Your task to perform on an android device: turn off translation in the chrome app Image 0: 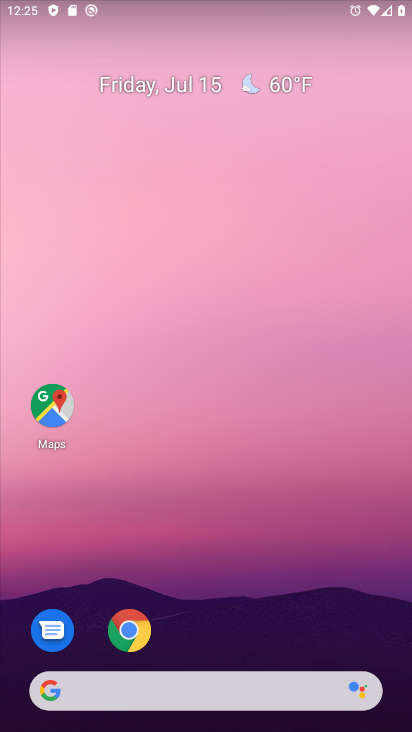
Step 0: click (118, 637)
Your task to perform on an android device: turn off translation in the chrome app Image 1: 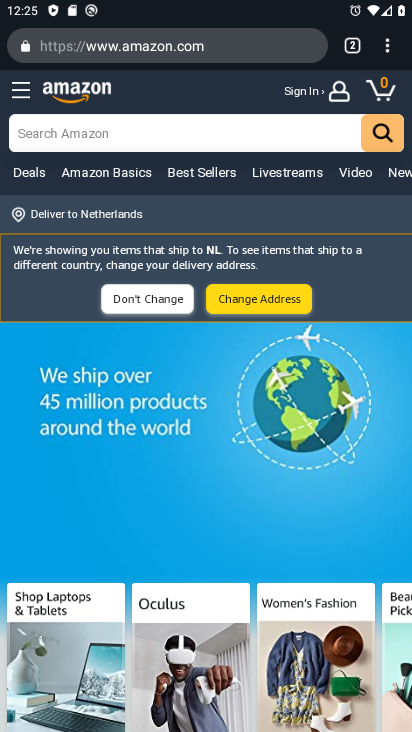
Step 1: click (392, 47)
Your task to perform on an android device: turn off translation in the chrome app Image 2: 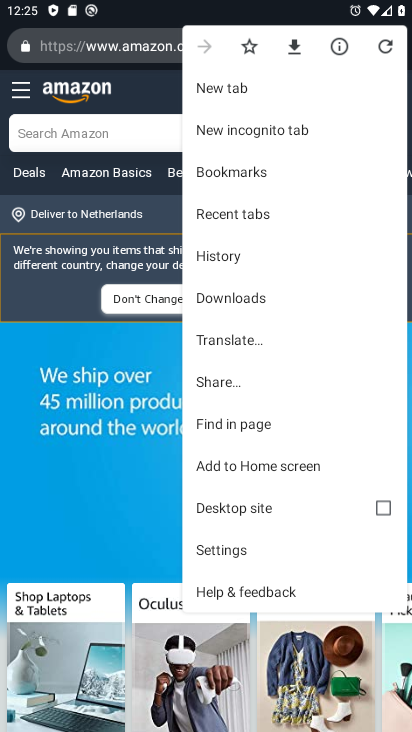
Step 2: click (219, 546)
Your task to perform on an android device: turn off translation in the chrome app Image 3: 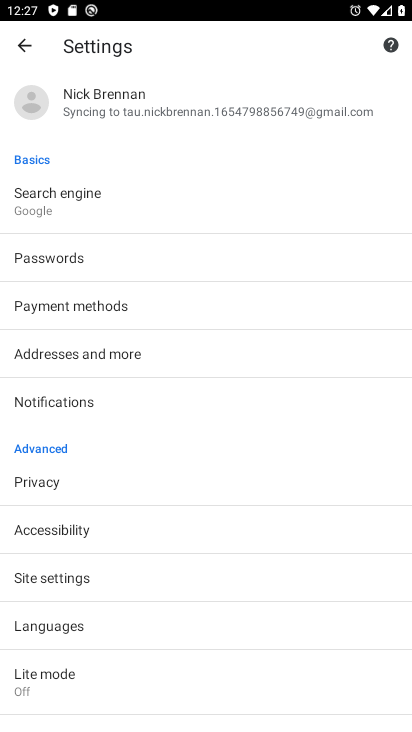
Step 3: press home button
Your task to perform on an android device: turn off translation in the chrome app Image 4: 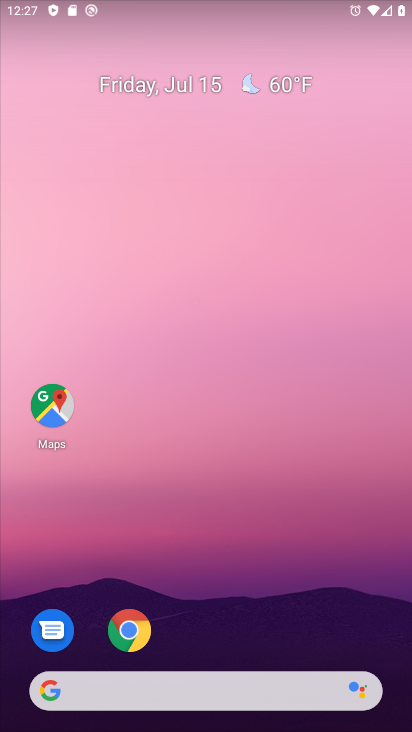
Step 4: drag from (224, 272) to (275, 567)
Your task to perform on an android device: turn off translation in the chrome app Image 5: 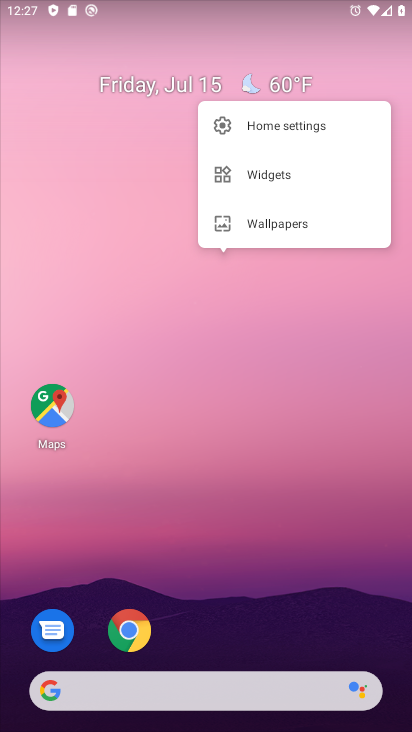
Step 5: click (126, 643)
Your task to perform on an android device: turn off translation in the chrome app Image 6: 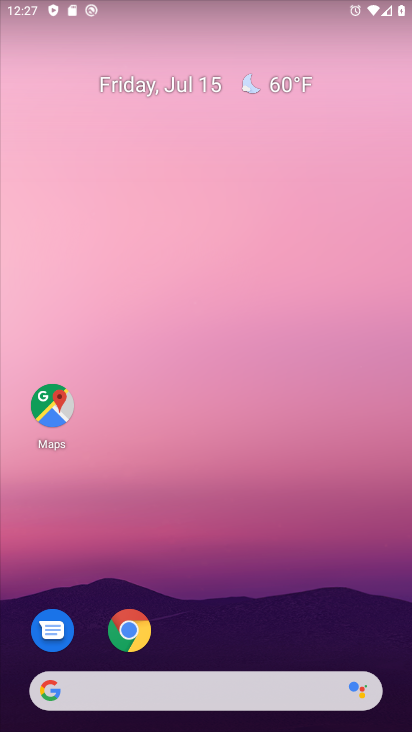
Step 6: click (130, 632)
Your task to perform on an android device: turn off translation in the chrome app Image 7: 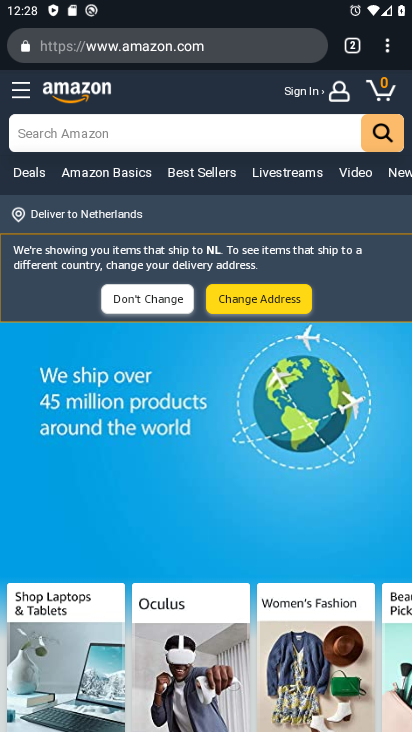
Step 7: click (384, 49)
Your task to perform on an android device: turn off translation in the chrome app Image 8: 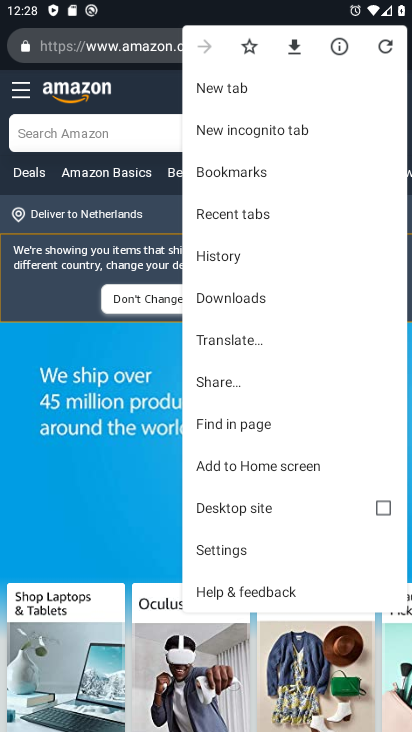
Step 8: click (225, 556)
Your task to perform on an android device: turn off translation in the chrome app Image 9: 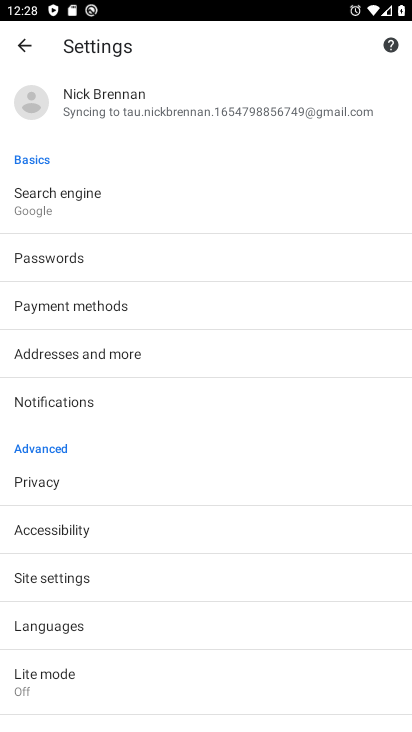
Step 9: click (41, 626)
Your task to perform on an android device: turn off translation in the chrome app Image 10: 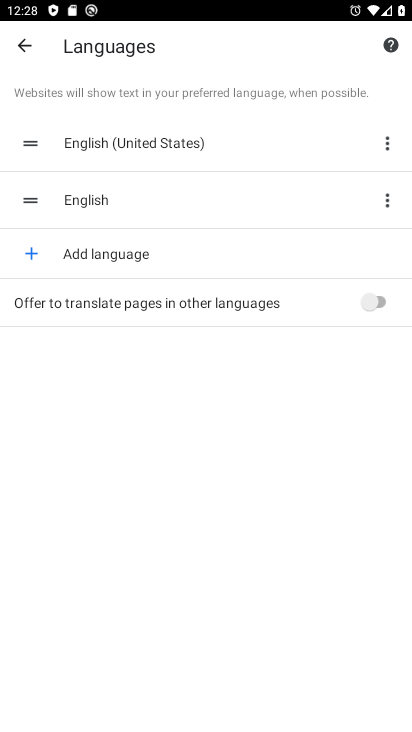
Step 10: task complete